Your task to perform on an android device: Empty the shopping cart on amazon.com. Add usb-c to the cart on amazon.com Image 0: 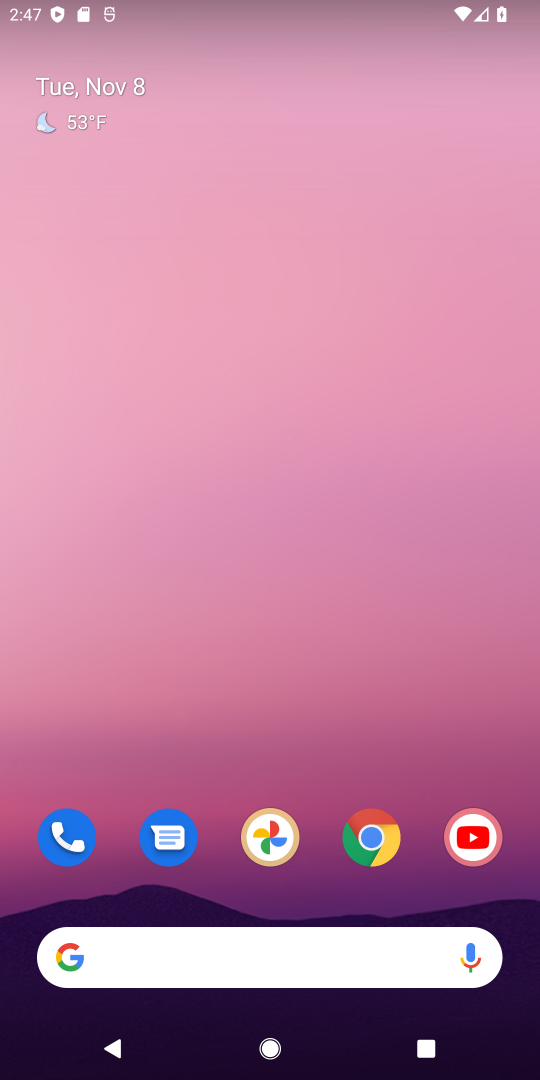
Step 0: click (376, 850)
Your task to perform on an android device: Empty the shopping cart on amazon.com. Add usb-c to the cart on amazon.com Image 1: 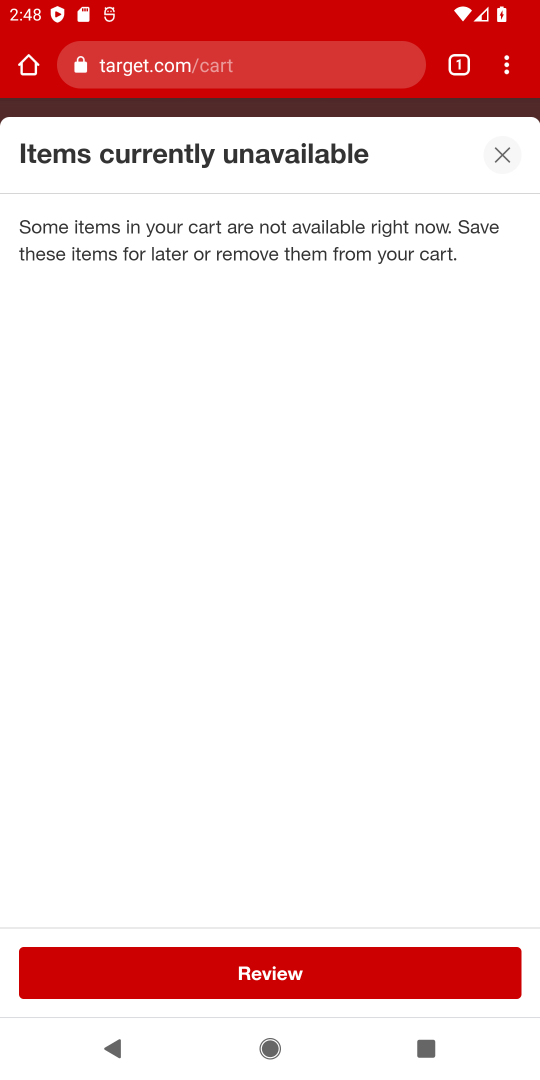
Step 1: press back button
Your task to perform on an android device: Empty the shopping cart on amazon.com. Add usb-c to the cart on amazon.com Image 2: 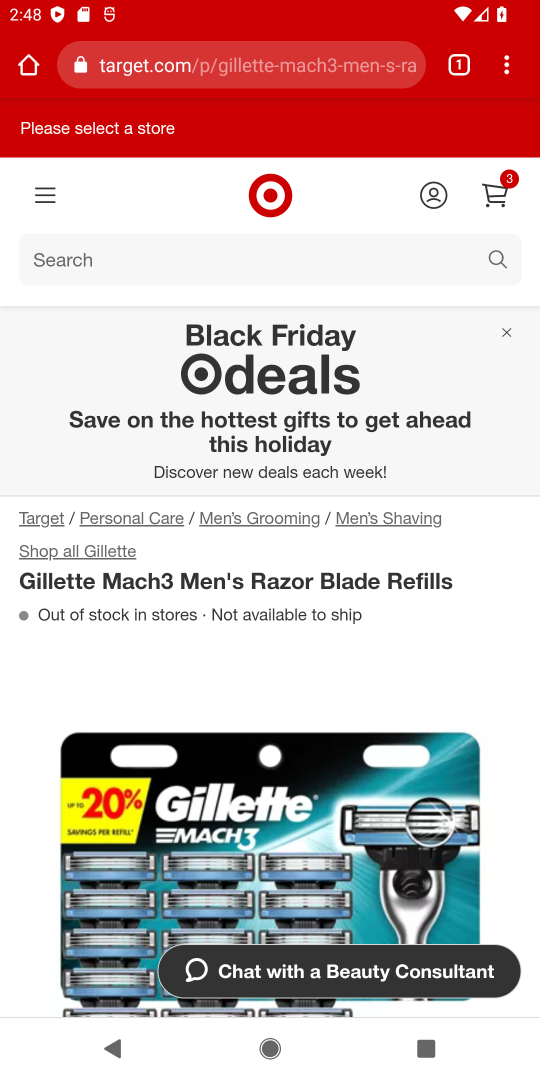
Step 2: click (167, 60)
Your task to perform on an android device: Empty the shopping cart on amazon.com. Add usb-c to the cart on amazon.com Image 3: 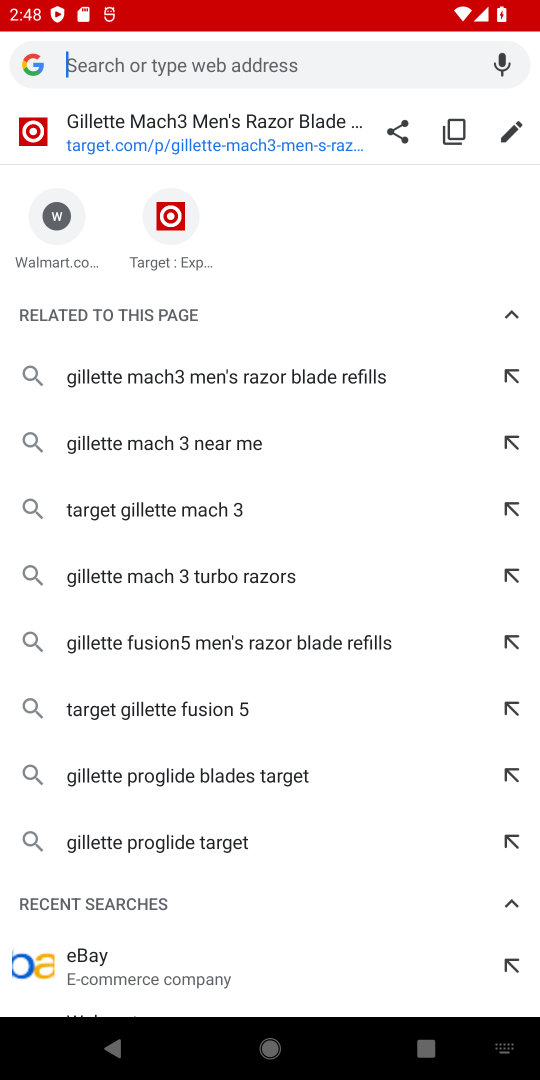
Step 3: type "amazon"
Your task to perform on an android device: Empty the shopping cart on amazon.com. Add usb-c to the cart on amazon.com Image 4: 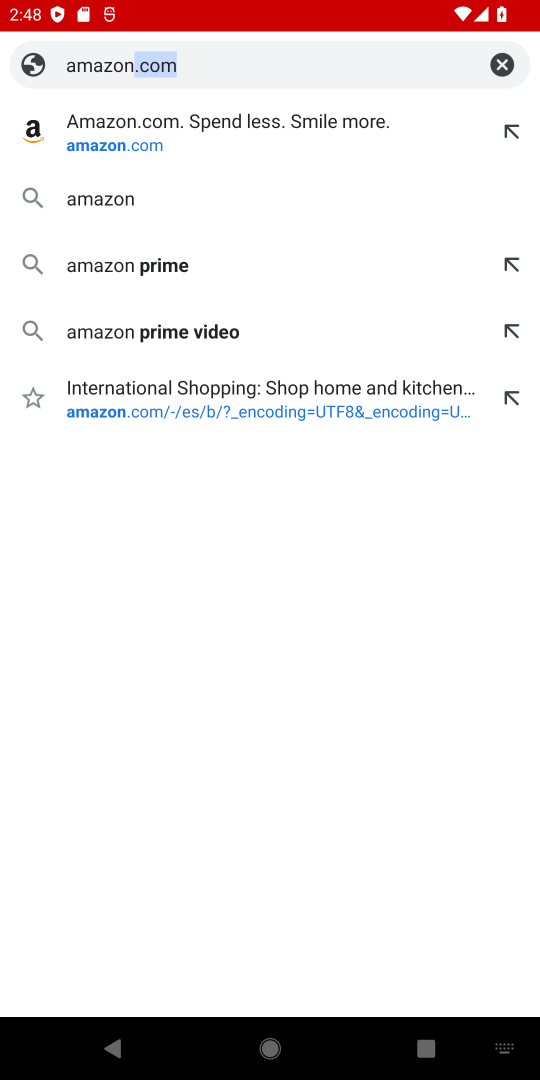
Step 4: click (82, 133)
Your task to perform on an android device: Empty the shopping cart on amazon.com. Add usb-c to the cart on amazon.com Image 5: 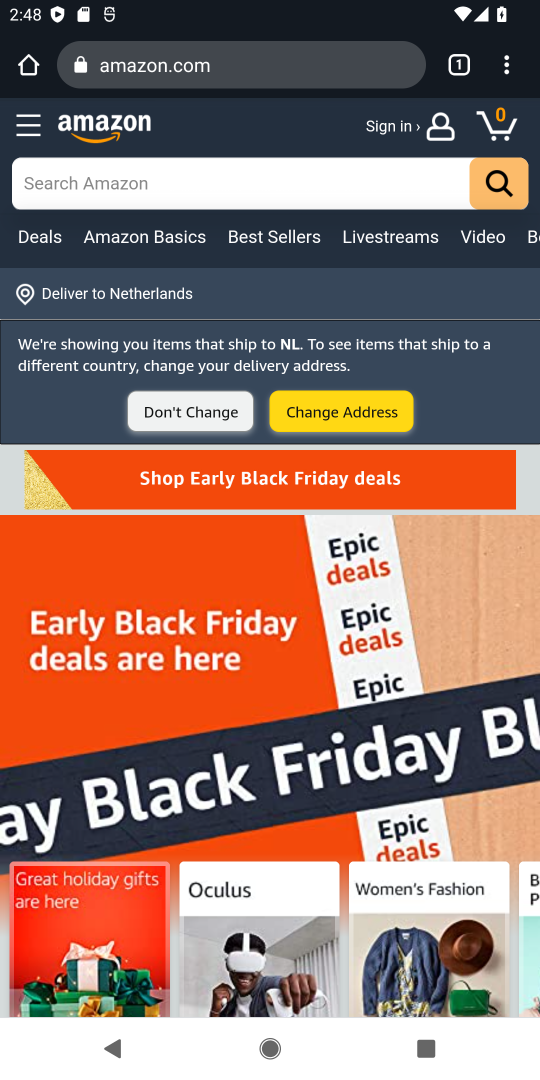
Step 5: click (245, 190)
Your task to perform on an android device: Empty the shopping cart on amazon.com. Add usb-c to the cart on amazon.com Image 6: 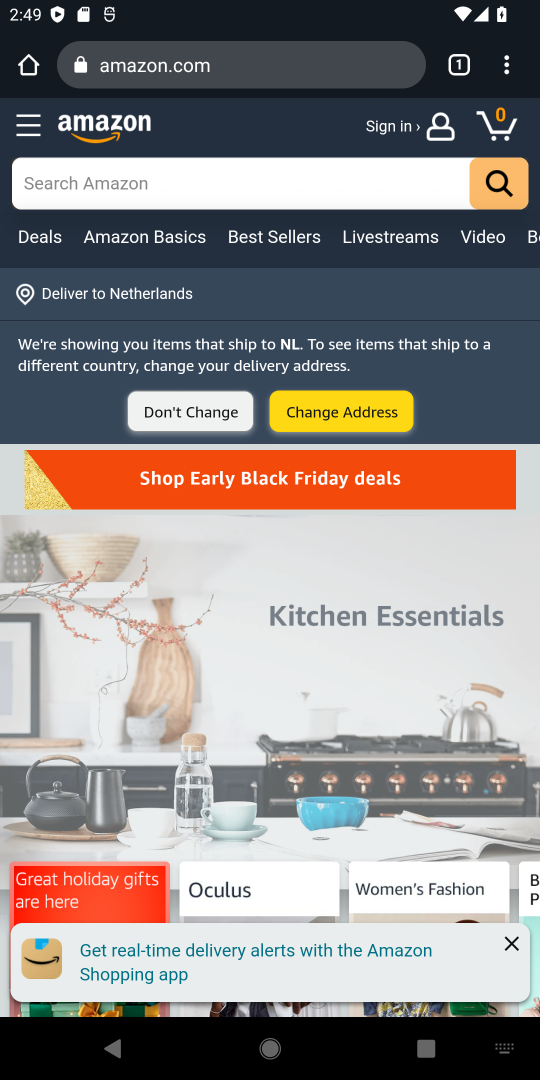
Step 6: type "usb - c "
Your task to perform on an android device: Empty the shopping cart on amazon.com. Add usb-c to the cart on amazon.com Image 7: 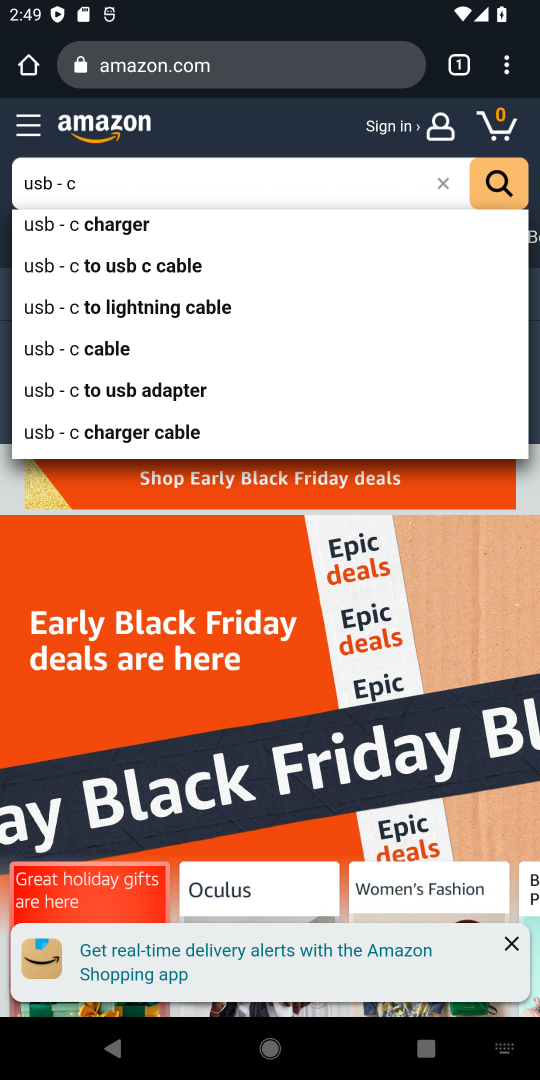
Step 7: click (128, 230)
Your task to perform on an android device: Empty the shopping cart on amazon.com. Add usb-c to the cart on amazon.com Image 8: 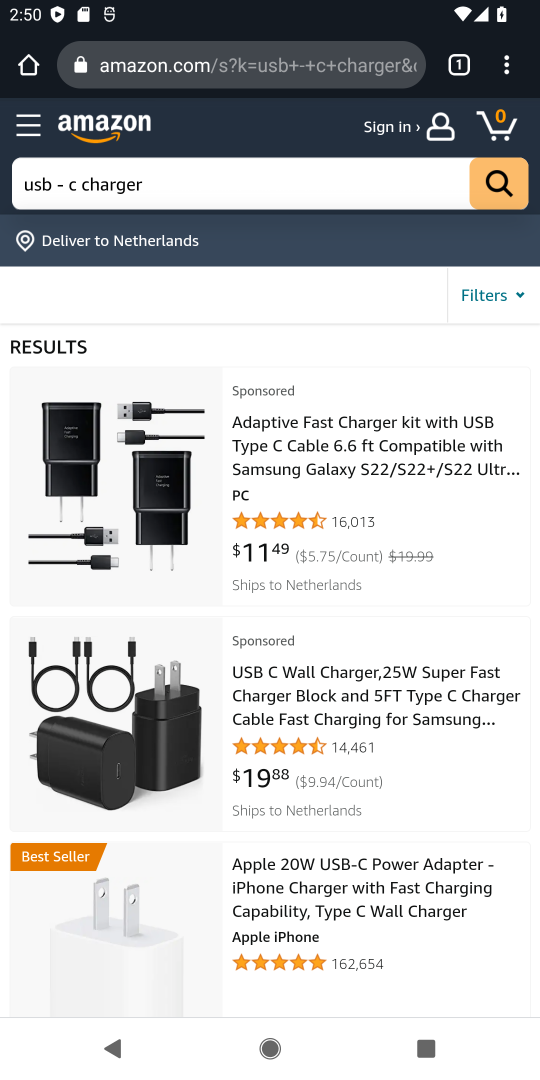
Step 8: click (311, 667)
Your task to perform on an android device: Empty the shopping cart on amazon.com. Add usb-c to the cart on amazon.com Image 9: 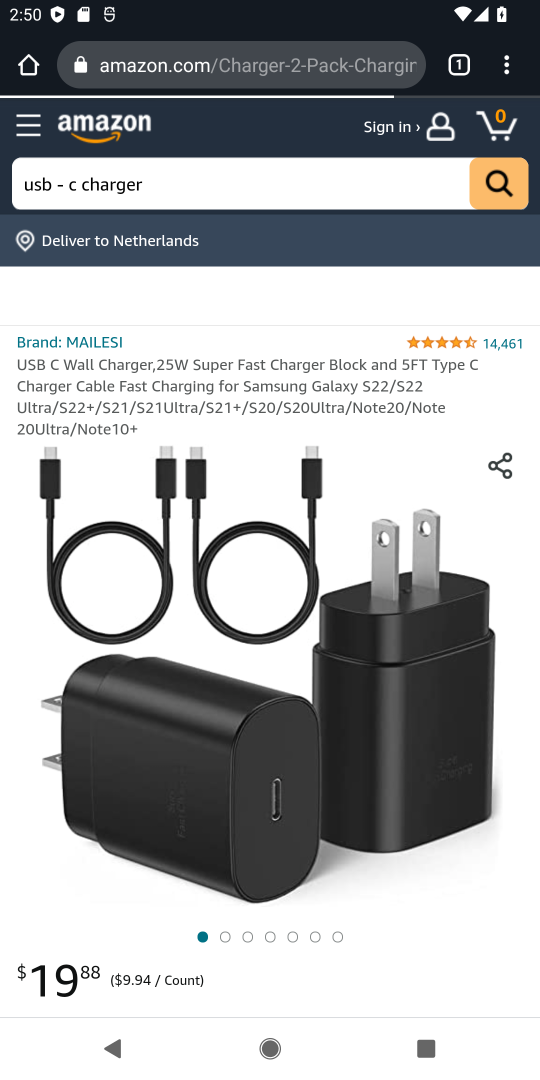
Step 9: drag from (258, 835) to (241, 469)
Your task to perform on an android device: Empty the shopping cart on amazon.com. Add usb-c to the cart on amazon.com Image 10: 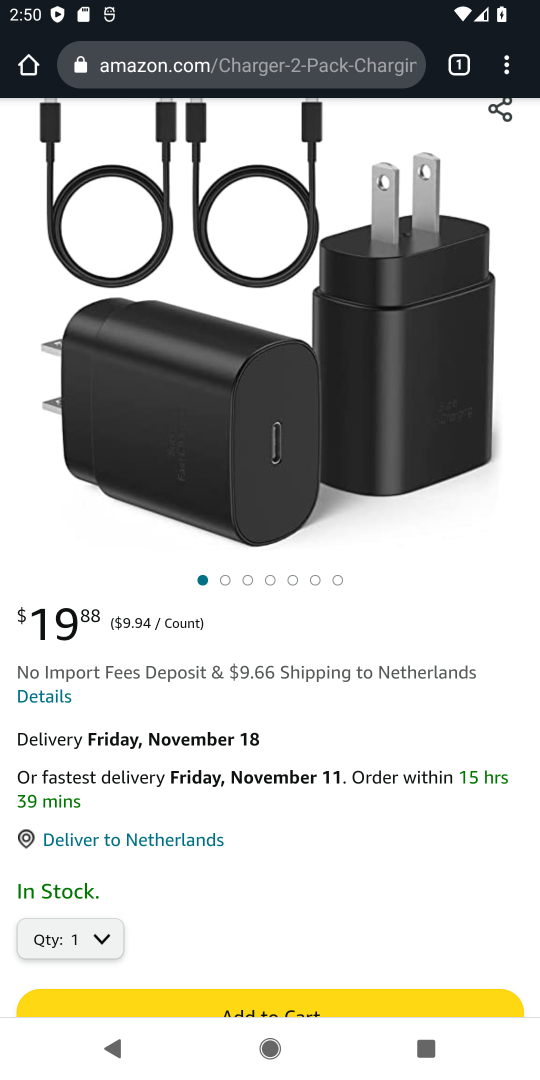
Step 10: drag from (296, 896) to (251, 428)
Your task to perform on an android device: Empty the shopping cart on amazon.com. Add usb-c to the cart on amazon.com Image 11: 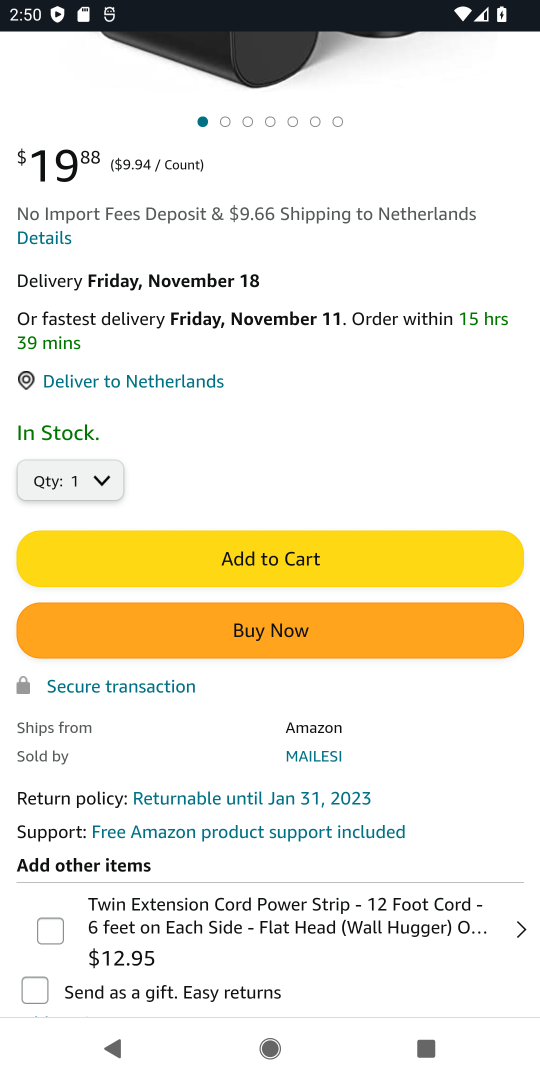
Step 11: click (321, 562)
Your task to perform on an android device: Empty the shopping cart on amazon.com. Add usb-c to the cart on amazon.com Image 12: 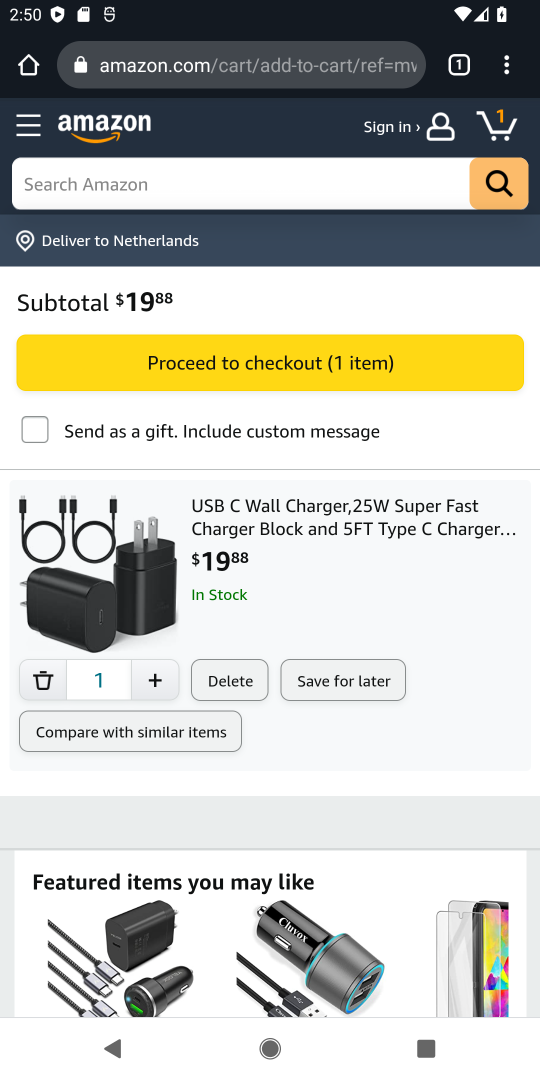
Step 12: click (260, 352)
Your task to perform on an android device: Empty the shopping cart on amazon.com. Add usb-c to the cart on amazon.com Image 13: 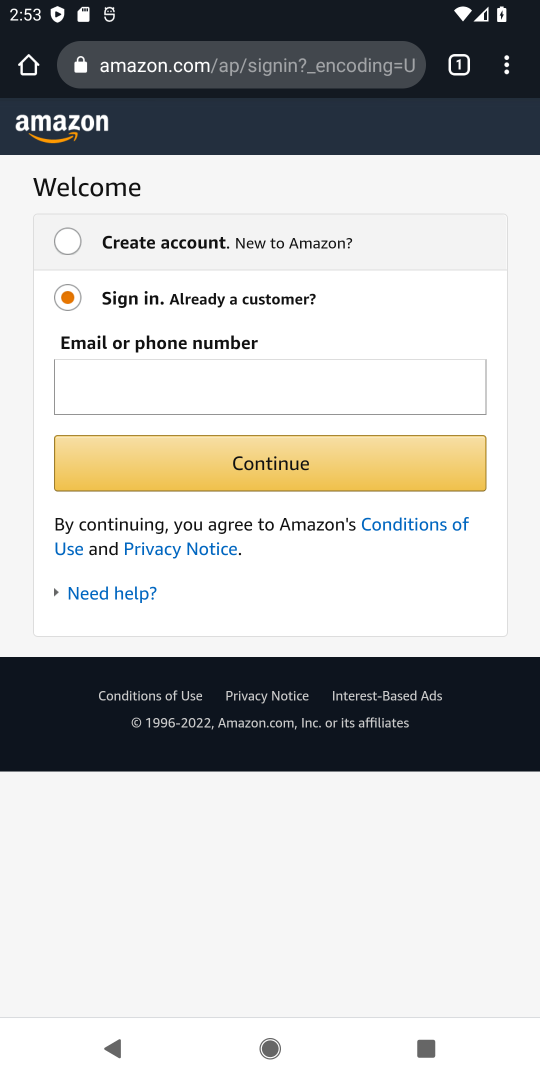
Step 13: task complete